Your task to perform on an android device: change the clock display to digital Image 0: 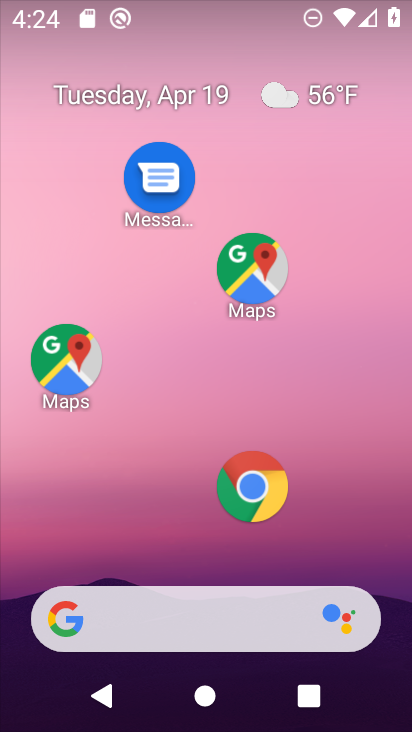
Step 0: drag from (172, 522) to (294, 150)
Your task to perform on an android device: change the clock display to digital Image 1: 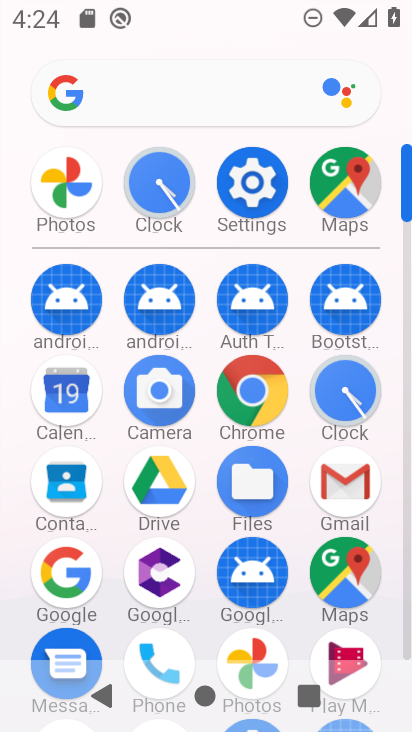
Step 1: click (342, 410)
Your task to perform on an android device: change the clock display to digital Image 2: 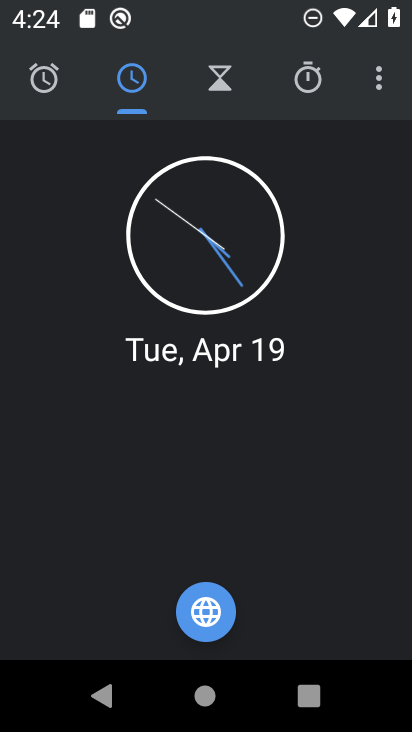
Step 2: click (371, 83)
Your task to perform on an android device: change the clock display to digital Image 3: 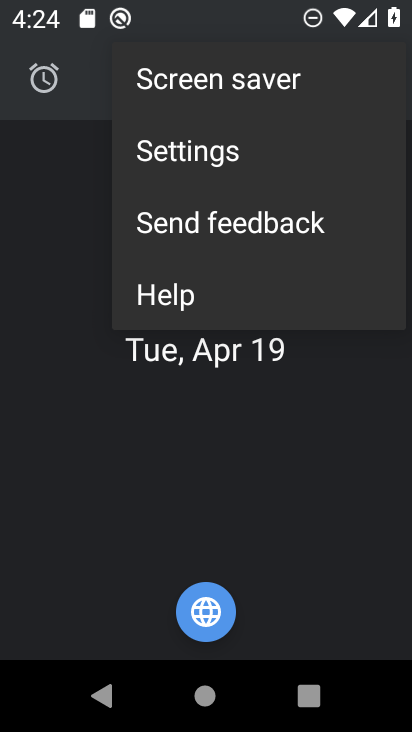
Step 3: click (233, 158)
Your task to perform on an android device: change the clock display to digital Image 4: 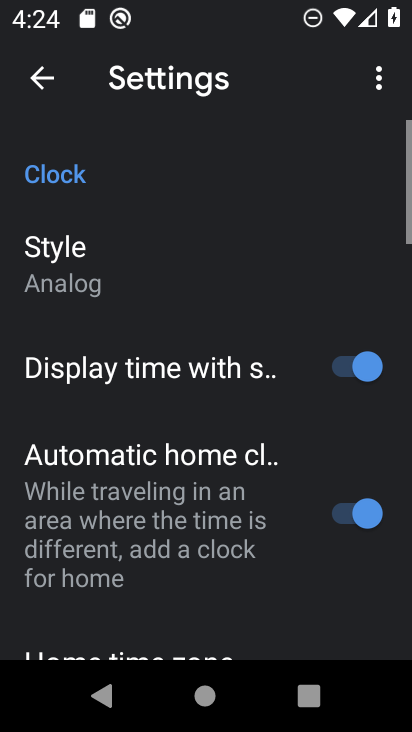
Step 4: click (149, 258)
Your task to perform on an android device: change the clock display to digital Image 5: 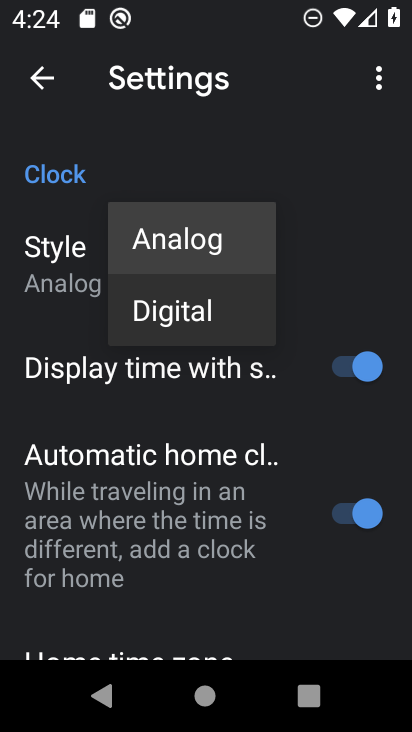
Step 5: click (188, 315)
Your task to perform on an android device: change the clock display to digital Image 6: 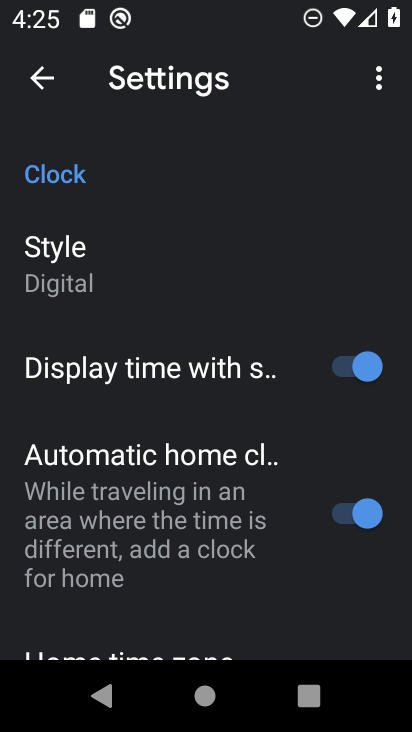
Step 6: task complete